Your task to perform on an android device: remove spam from my inbox in the gmail app Image 0: 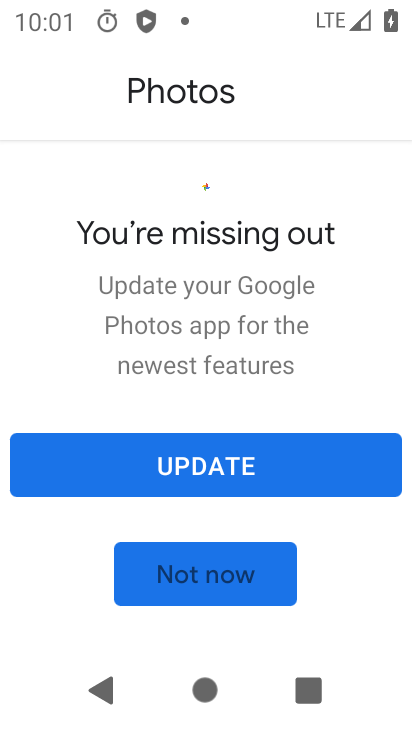
Step 0: press home button
Your task to perform on an android device: remove spam from my inbox in the gmail app Image 1: 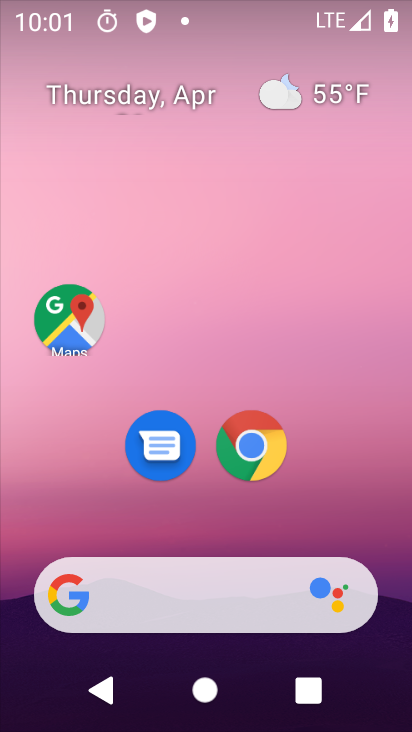
Step 1: drag from (393, 533) to (373, 10)
Your task to perform on an android device: remove spam from my inbox in the gmail app Image 2: 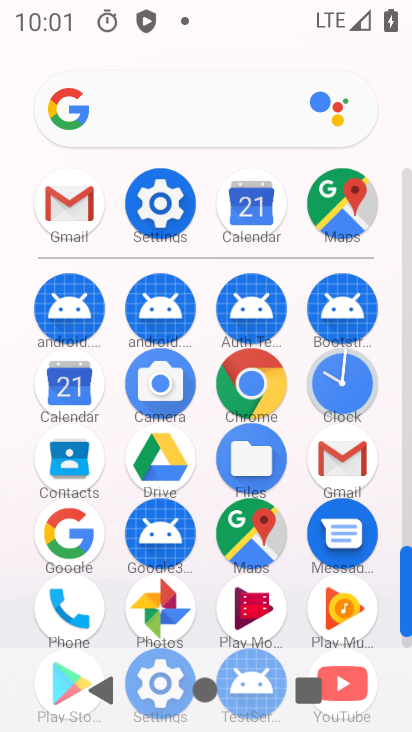
Step 2: click (65, 216)
Your task to perform on an android device: remove spam from my inbox in the gmail app Image 3: 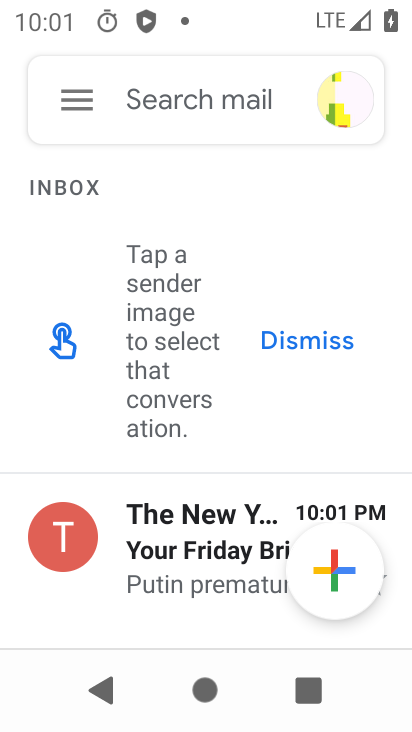
Step 3: click (76, 100)
Your task to perform on an android device: remove spam from my inbox in the gmail app Image 4: 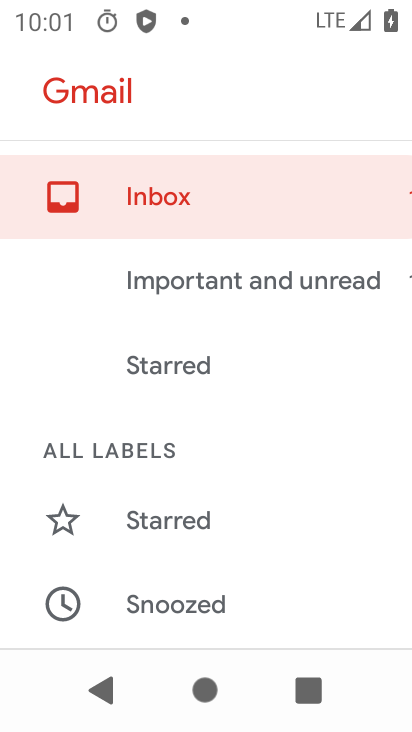
Step 4: drag from (231, 575) to (198, 85)
Your task to perform on an android device: remove spam from my inbox in the gmail app Image 5: 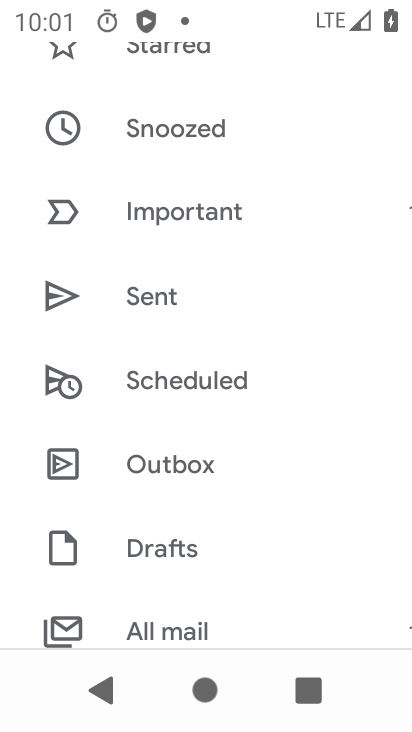
Step 5: drag from (223, 464) to (169, 104)
Your task to perform on an android device: remove spam from my inbox in the gmail app Image 6: 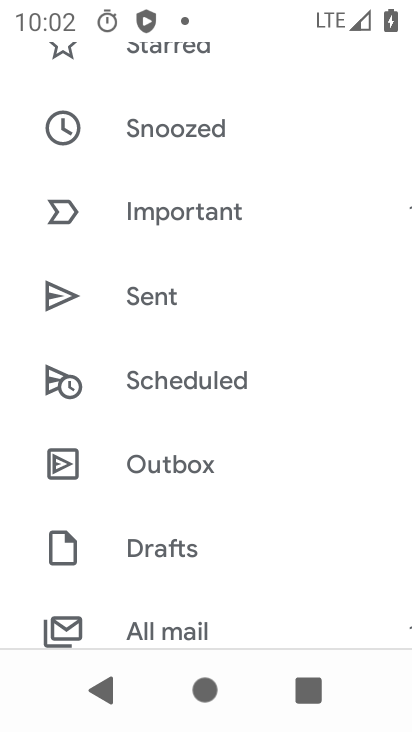
Step 6: drag from (209, 511) to (241, 139)
Your task to perform on an android device: remove spam from my inbox in the gmail app Image 7: 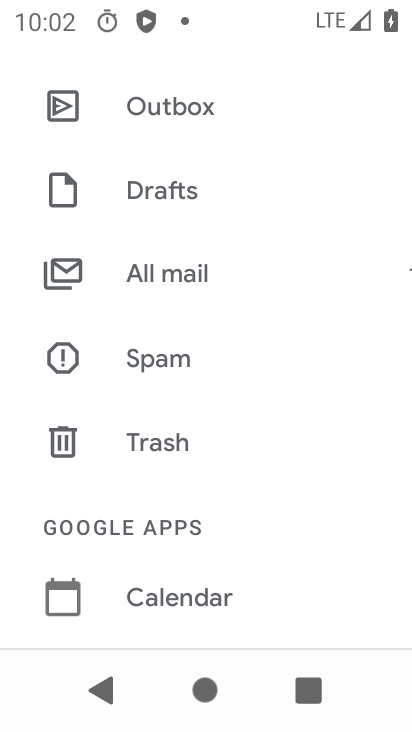
Step 7: click (135, 360)
Your task to perform on an android device: remove spam from my inbox in the gmail app Image 8: 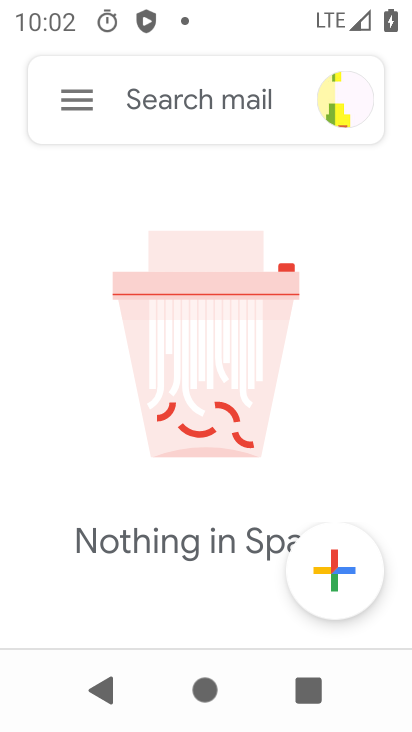
Step 8: task complete